Your task to perform on an android device: turn on wifi Image 0: 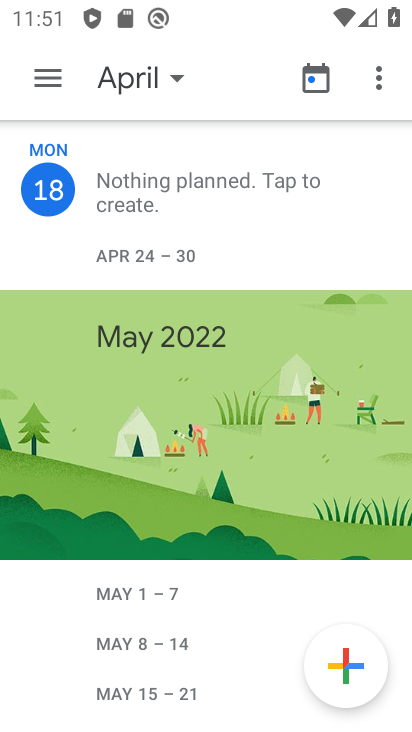
Step 0: press home button
Your task to perform on an android device: turn on wifi Image 1: 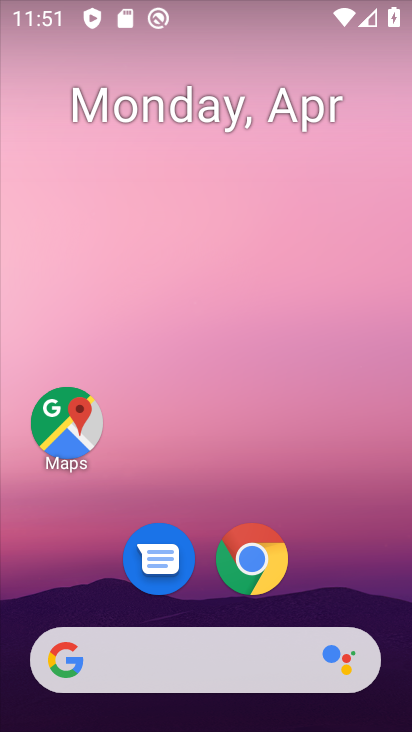
Step 1: drag from (367, 562) to (241, 92)
Your task to perform on an android device: turn on wifi Image 2: 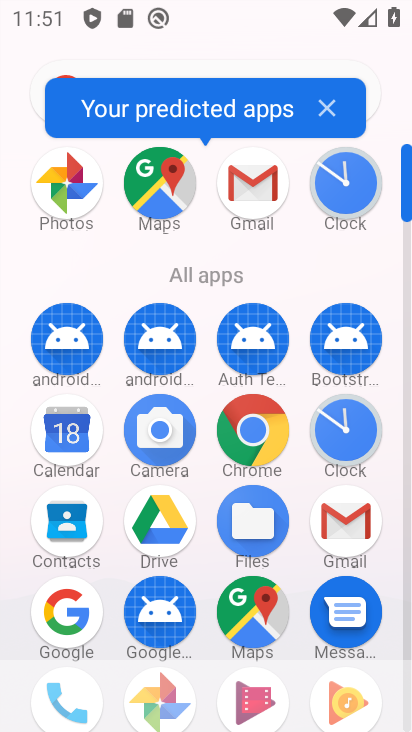
Step 2: click (404, 626)
Your task to perform on an android device: turn on wifi Image 3: 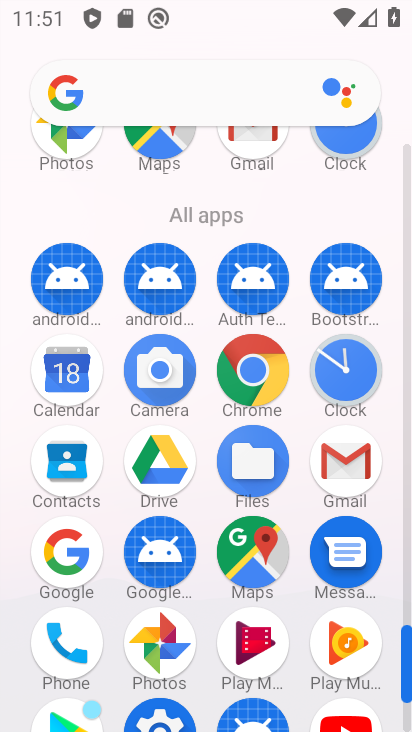
Step 3: click (160, 719)
Your task to perform on an android device: turn on wifi Image 4: 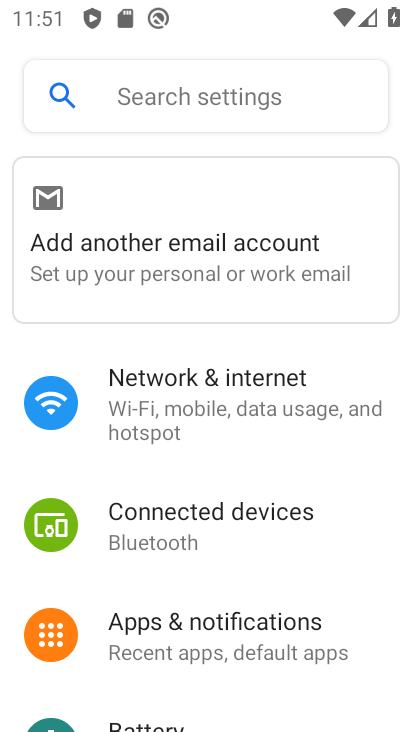
Step 4: click (257, 408)
Your task to perform on an android device: turn on wifi Image 5: 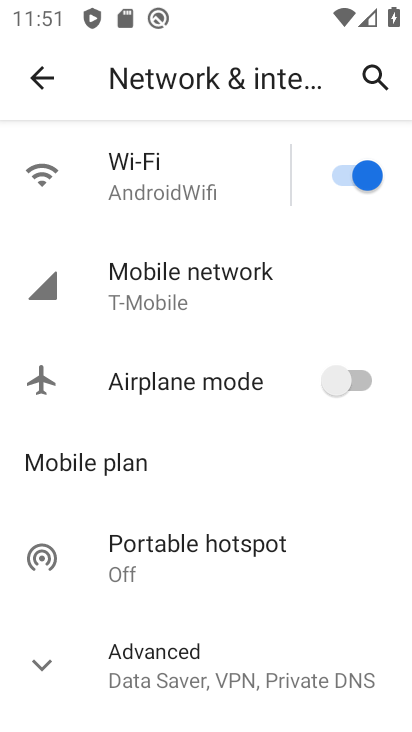
Step 5: task complete